Your task to perform on an android device: Go to Amazon Image 0: 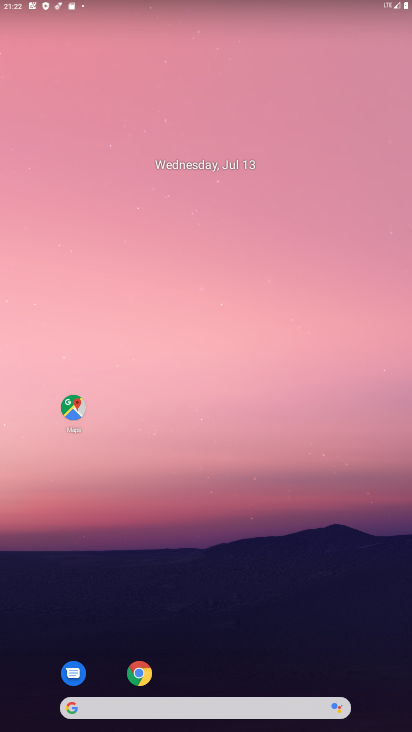
Step 0: click (302, 14)
Your task to perform on an android device: Go to Amazon Image 1: 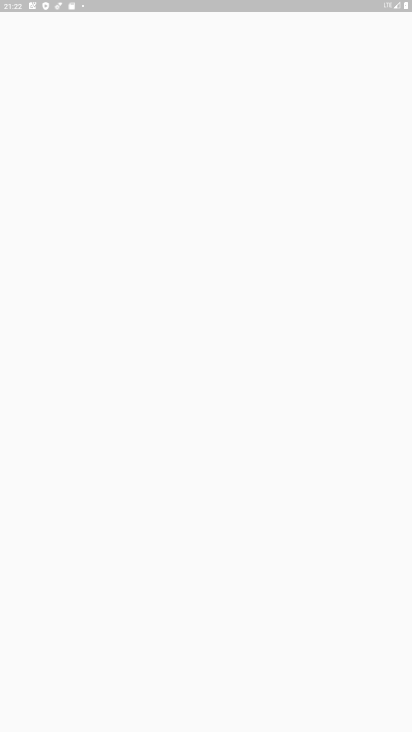
Step 1: drag from (195, 591) to (209, 440)
Your task to perform on an android device: Go to Amazon Image 2: 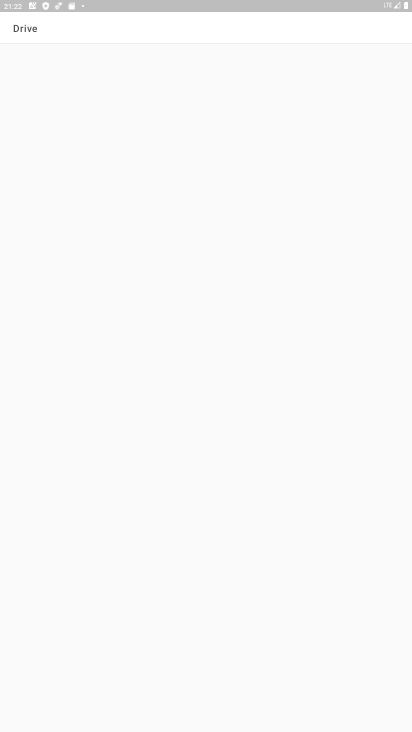
Step 2: press home button
Your task to perform on an android device: Go to Amazon Image 3: 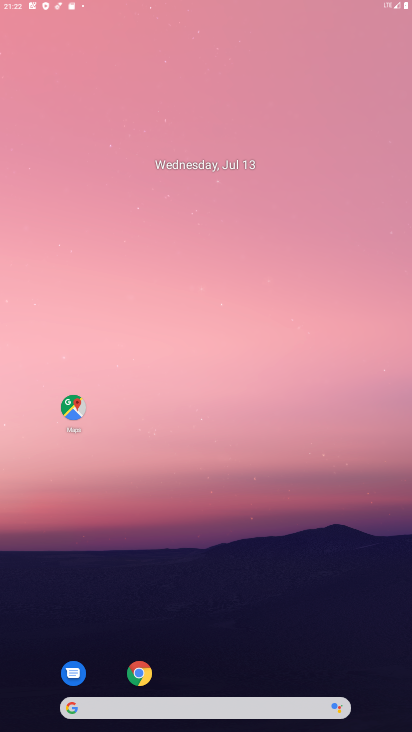
Step 3: drag from (230, 659) to (332, 151)
Your task to perform on an android device: Go to Amazon Image 4: 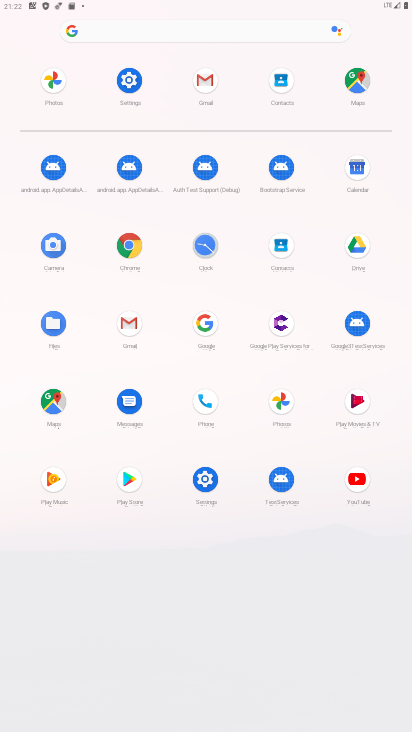
Step 4: click (120, 238)
Your task to perform on an android device: Go to Amazon Image 5: 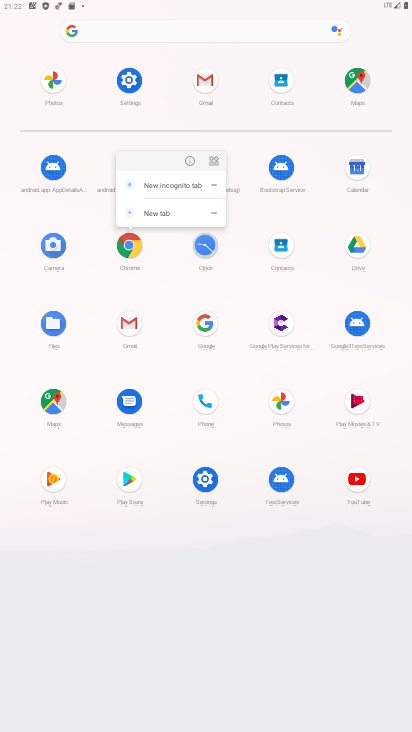
Step 5: click (193, 154)
Your task to perform on an android device: Go to Amazon Image 6: 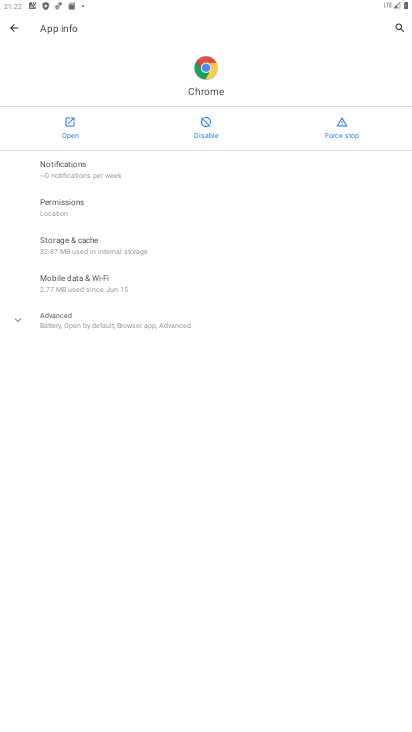
Step 6: click (60, 125)
Your task to perform on an android device: Go to Amazon Image 7: 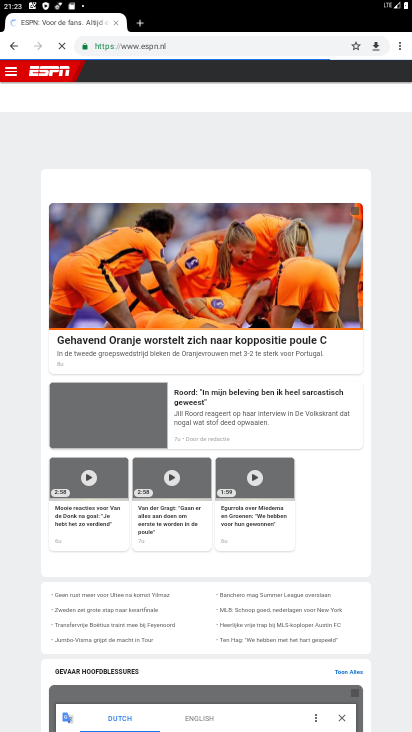
Step 7: click (140, 26)
Your task to perform on an android device: Go to Amazon Image 8: 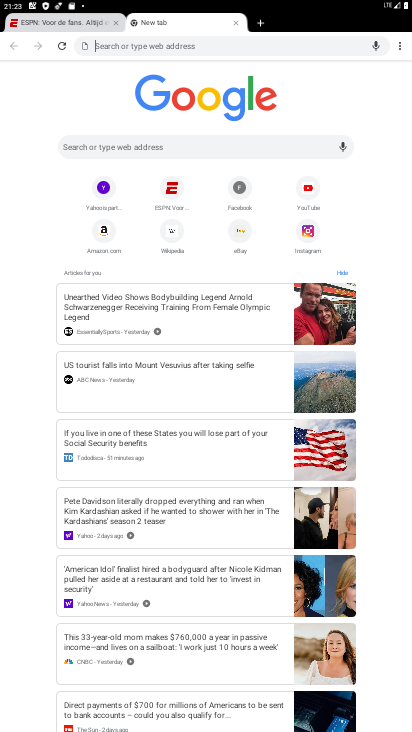
Step 8: click (107, 235)
Your task to perform on an android device: Go to Amazon Image 9: 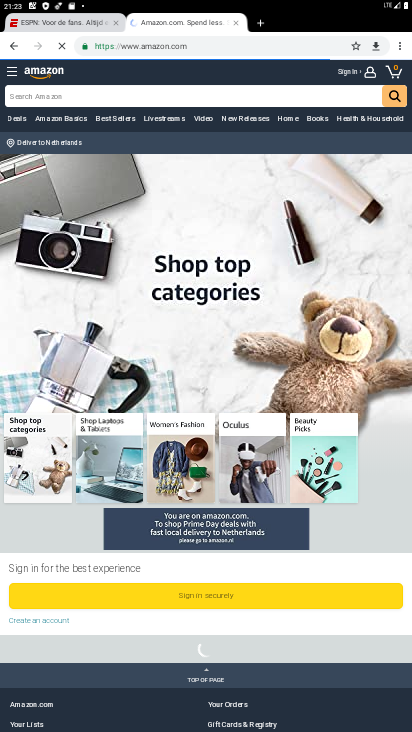
Step 9: task complete